Your task to perform on an android device: change alarm snooze length Image 0: 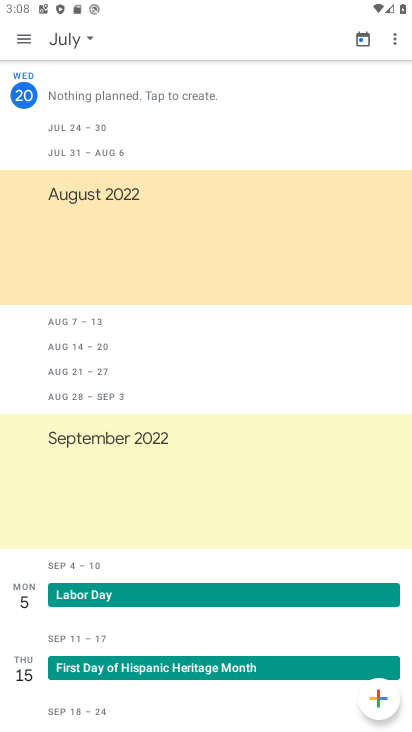
Step 0: press home button
Your task to perform on an android device: change alarm snooze length Image 1: 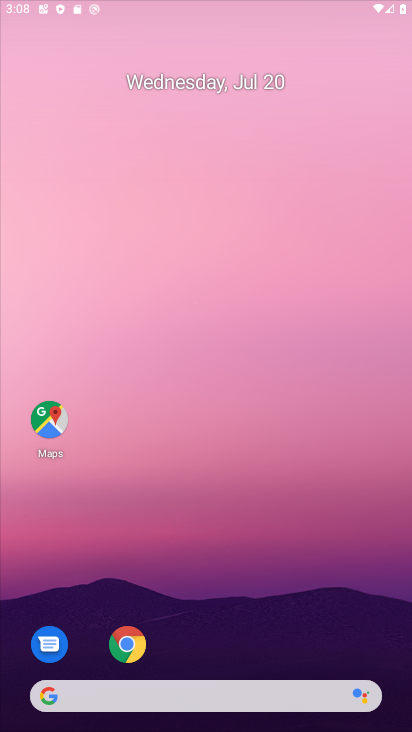
Step 1: drag from (167, 675) to (129, 300)
Your task to perform on an android device: change alarm snooze length Image 2: 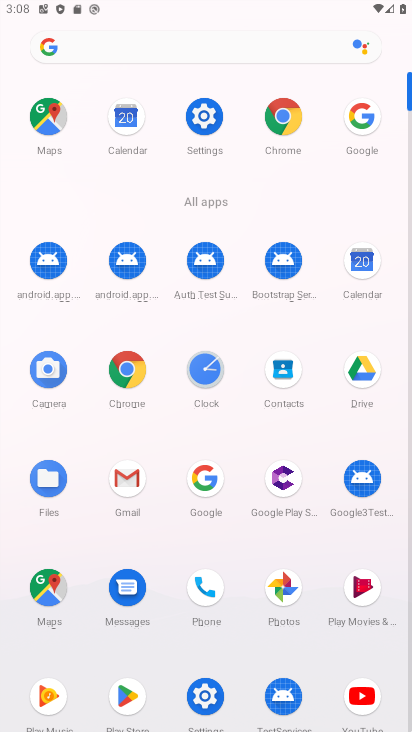
Step 2: click (205, 378)
Your task to perform on an android device: change alarm snooze length Image 3: 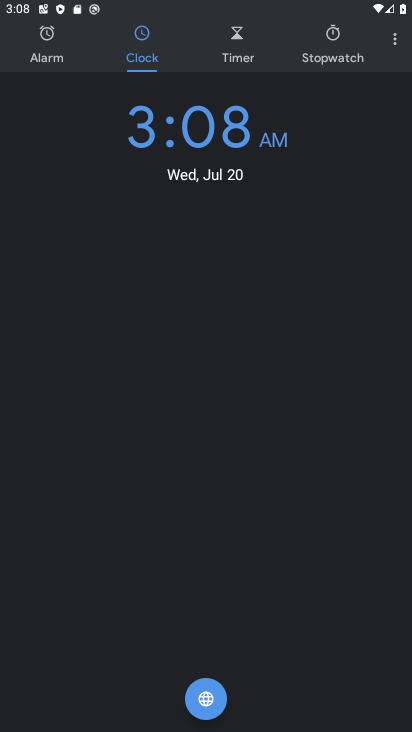
Step 3: click (398, 48)
Your task to perform on an android device: change alarm snooze length Image 4: 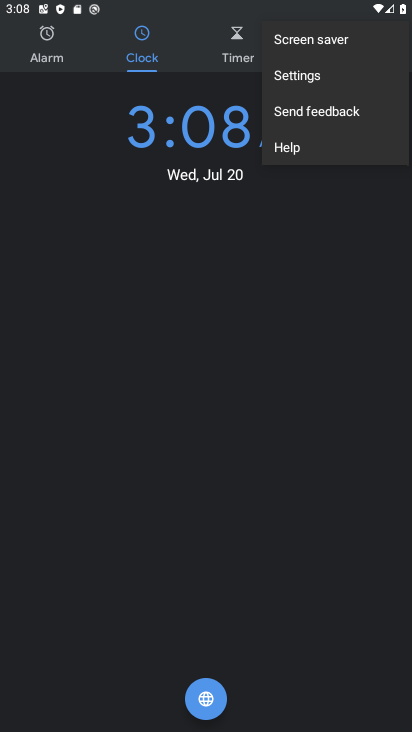
Step 4: click (299, 74)
Your task to perform on an android device: change alarm snooze length Image 5: 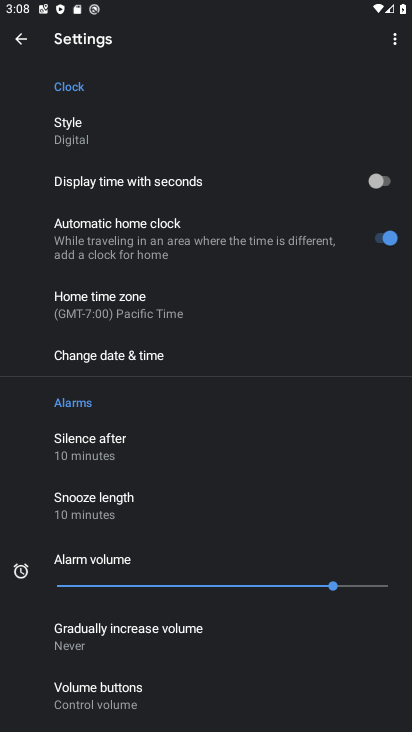
Step 5: click (69, 506)
Your task to perform on an android device: change alarm snooze length Image 6: 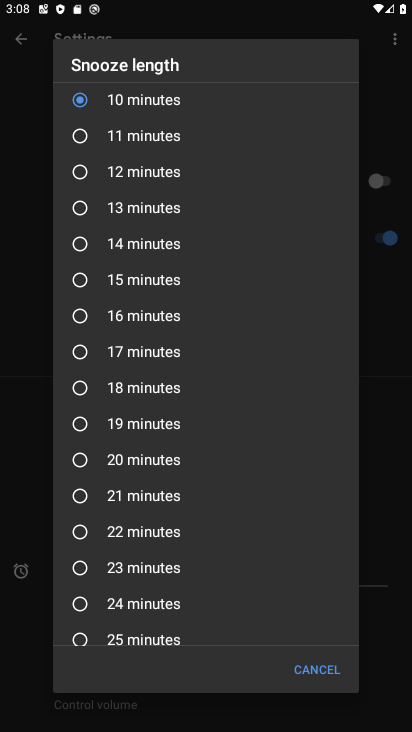
Step 6: click (127, 210)
Your task to perform on an android device: change alarm snooze length Image 7: 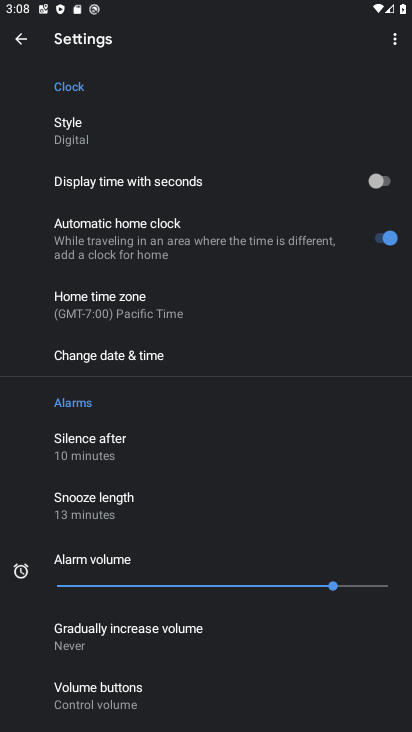
Step 7: task complete